Your task to perform on an android device: turn off improve location accuracy Image 0: 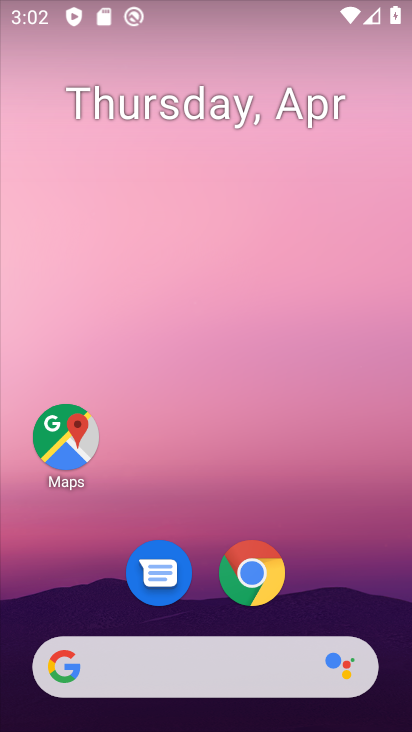
Step 0: drag from (358, 606) to (287, 64)
Your task to perform on an android device: turn off improve location accuracy Image 1: 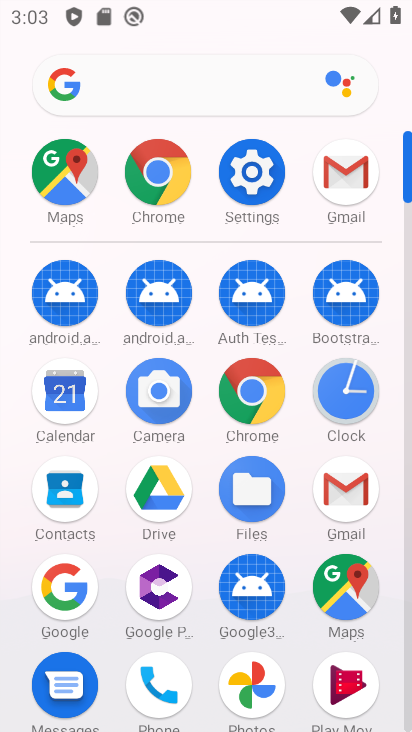
Step 1: click (251, 193)
Your task to perform on an android device: turn off improve location accuracy Image 2: 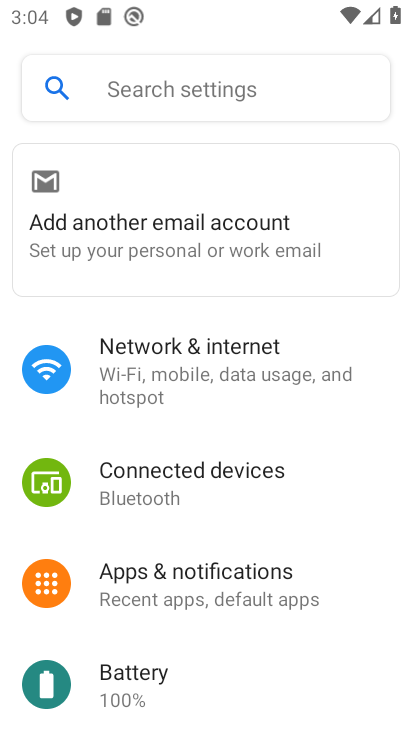
Step 2: drag from (165, 649) to (212, 244)
Your task to perform on an android device: turn off improve location accuracy Image 3: 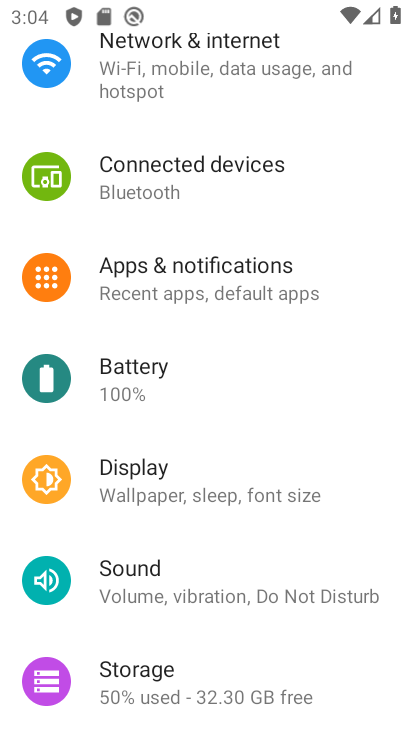
Step 3: drag from (203, 677) to (213, 278)
Your task to perform on an android device: turn off improve location accuracy Image 4: 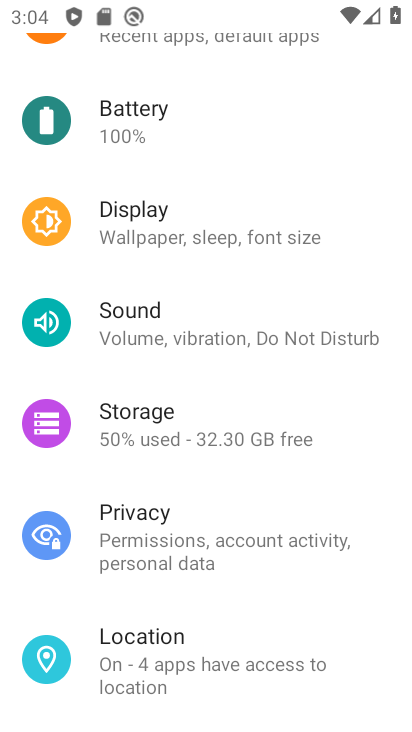
Step 4: click (177, 697)
Your task to perform on an android device: turn off improve location accuracy Image 5: 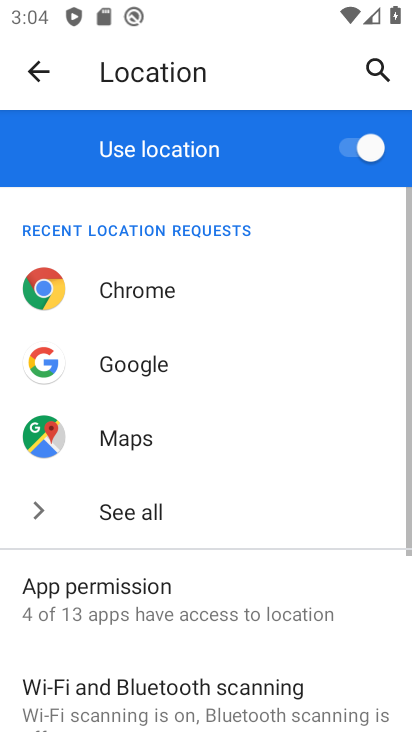
Step 5: drag from (161, 639) to (250, 145)
Your task to perform on an android device: turn off improve location accuracy Image 6: 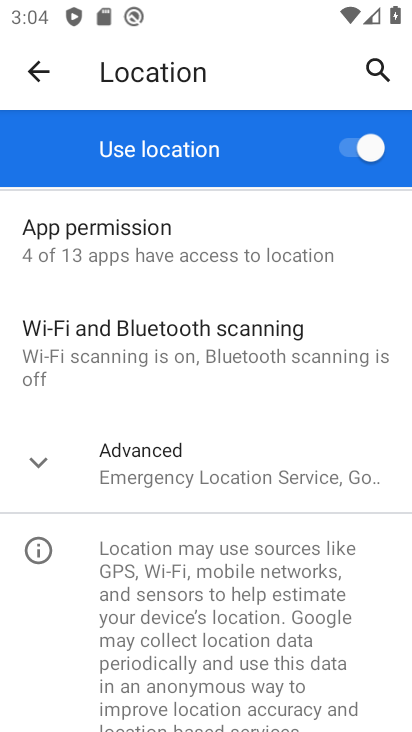
Step 6: click (128, 454)
Your task to perform on an android device: turn off improve location accuracy Image 7: 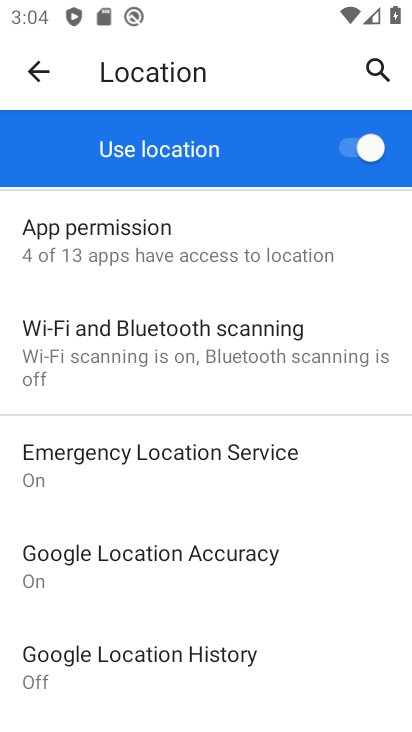
Step 7: click (206, 583)
Your task to perform on an android device: turn off improve location accuracy Image 8: 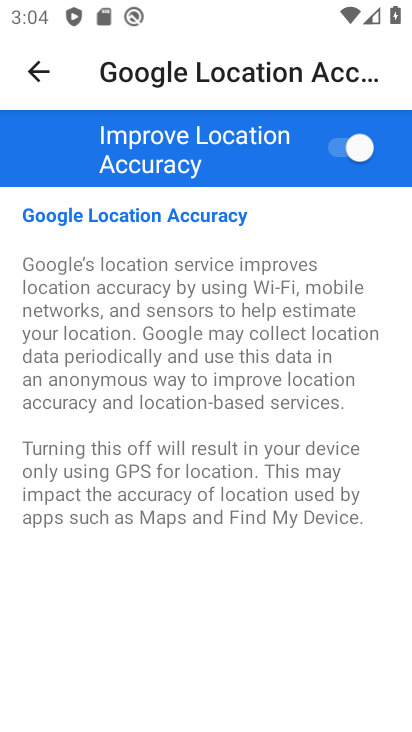
Step 8: click (336, 166)
Your task to perform on an android device: turn off improve location accuracy Image 9: 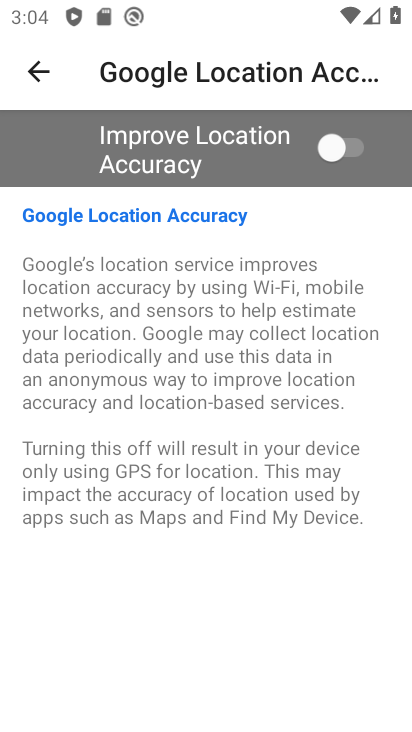
Step 9: task complete